Your task to perform on an android device: clear history in the chrome app Image 0: 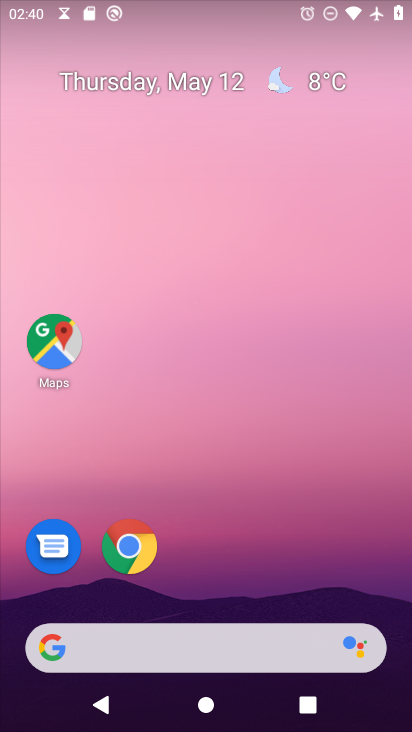
Step 0: drag from (139, 651) to (278, 169)
Your task to perform on an android device: clear history in the chrome app Image 1: 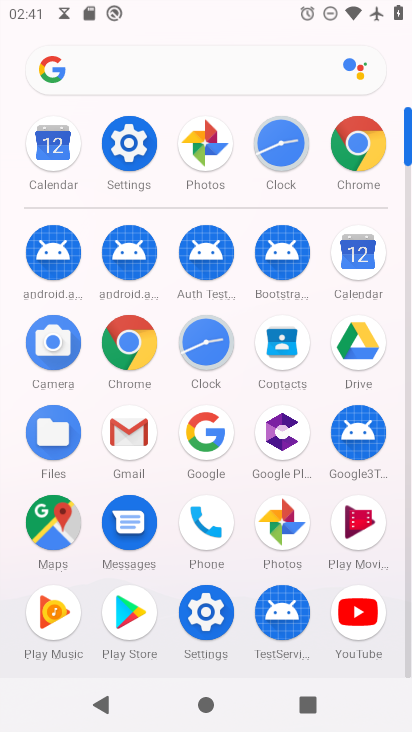
Step 1: click (359, 160)
Your task to perform on an android device: clear history in the chrome app Image 2: 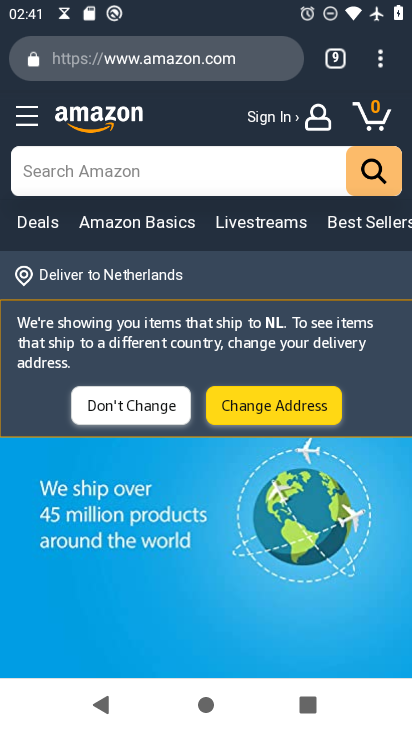
Step 2: drag from (381, 65) to (247, 334)
Your task to perform on an android device: clear history in the chrome app Image 3: 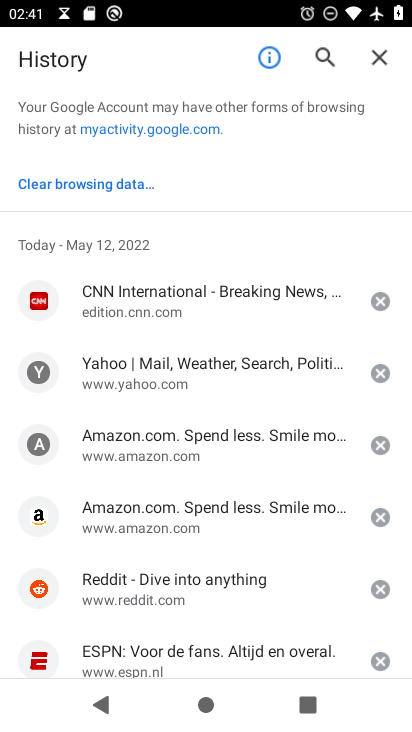
Step 3: click (95, 182)
Your task to perform on an android device: clear history in the chrome app Image 4: 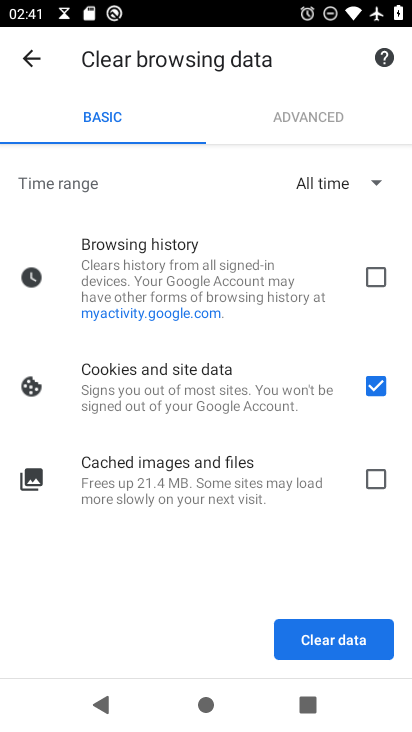
Step 4: click (374, 277)
Your task to perform on an android device: clear history in the chrome app Image 5: 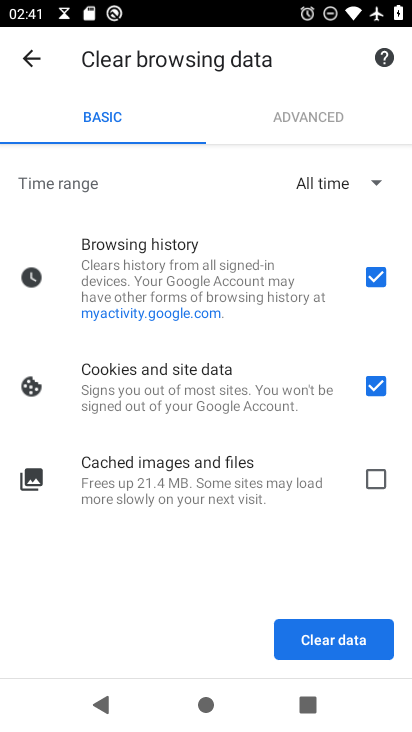
Step 5: click (371, 482)
Your task to perform on an android device: clear history in the chrome app Image 6: 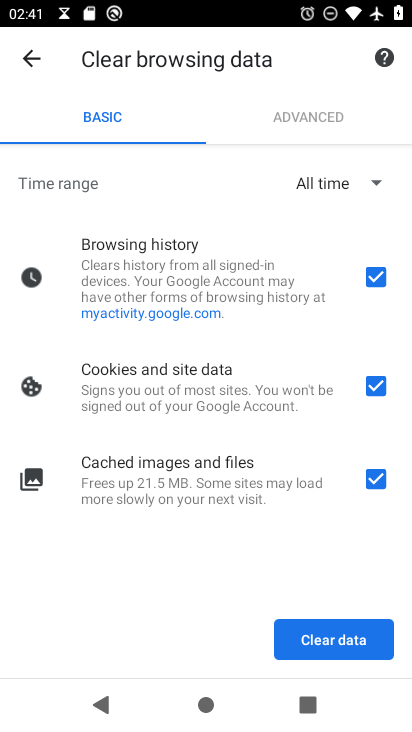
Step 6: click (347, 648)
Your task to perform on an android device: clear history in the chrome app Image 7: 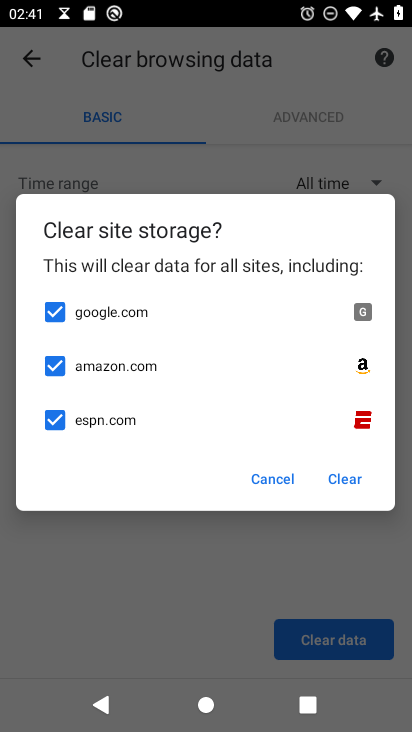
Step 7: click (346, 484)
Your task to perform on an android device: clear history in the chrome app Image 8: 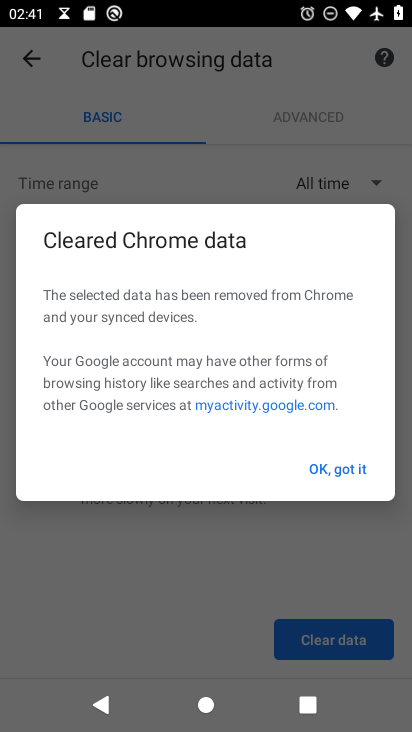
Step 8: click (348, 475)
Your task to perform on an android device: clear history in the chrome app Image 9: 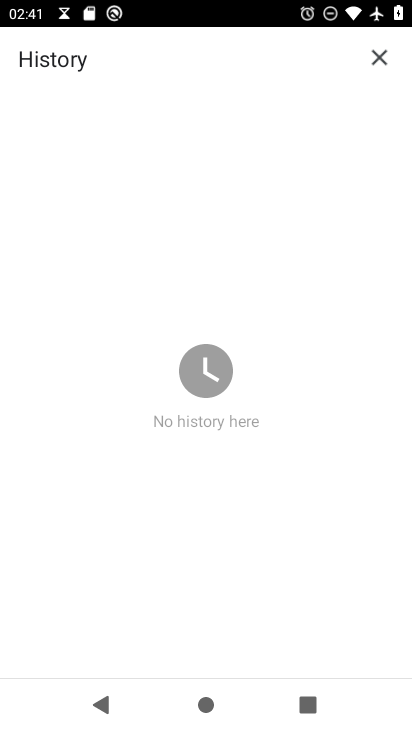
Step 9: task complete